Your task to perform on an android device: change timer sound Image 0: 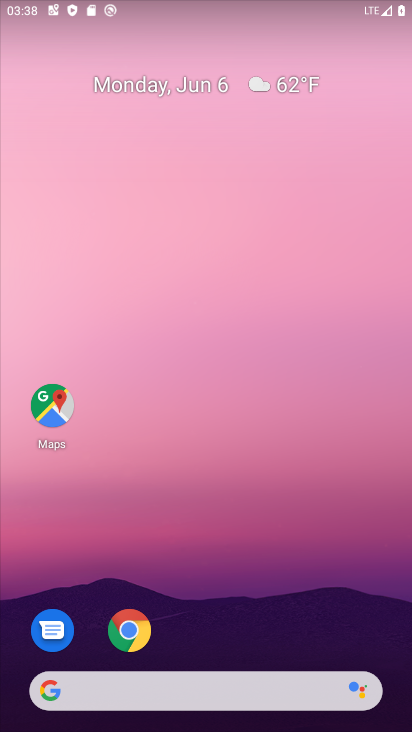
Step 0: press home button
Your task to perform on an android device: change timer sound Image 1: 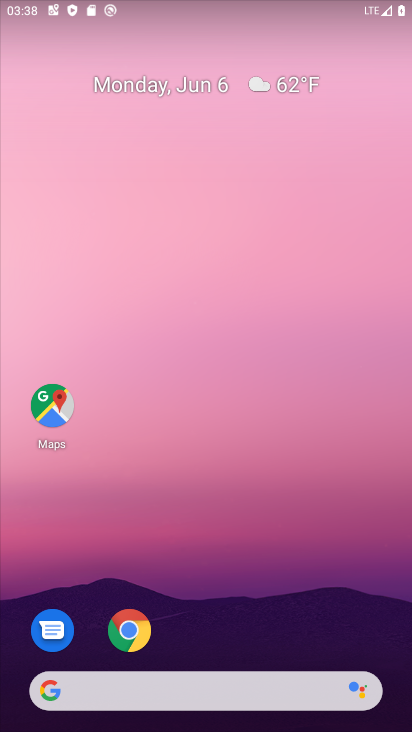
Step 1: drag from (262, 540) to (301, 37)
Your task to perform on an android device: change timer sound Image 2: 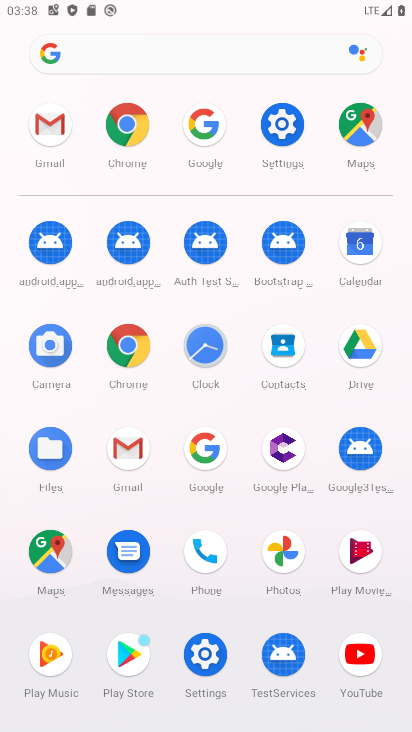
Step 2: click (200, 333)
Your task to perform on an android device: change timer sound Image 3: 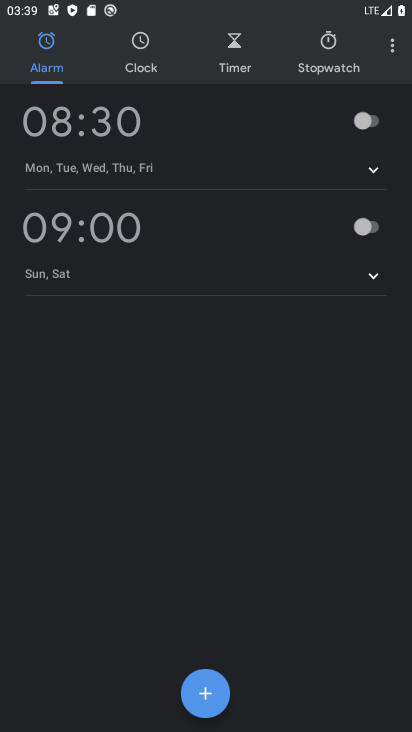
Step 3: click (227, 60)
Your task to perform on an android device: change timer sound Image 4: 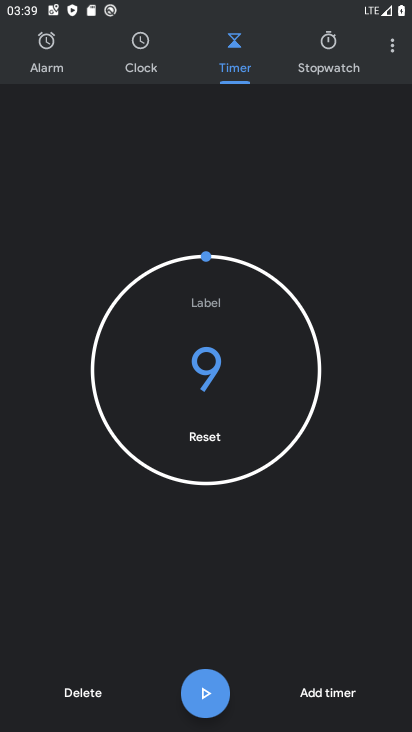
Step 4: click (343, 689)
Your task to perform on an android device: change timer sound Image 5: 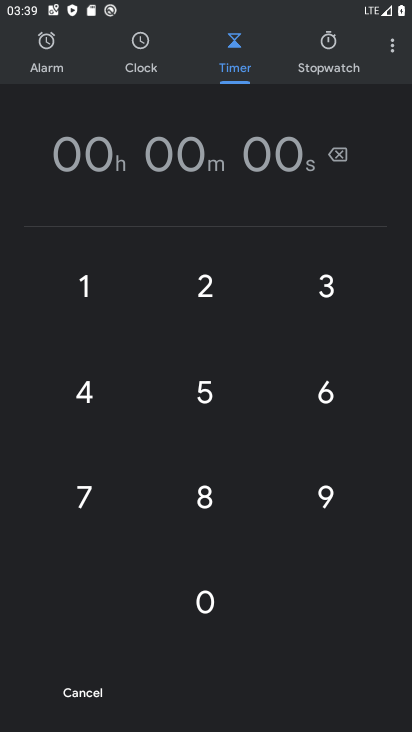
Step 5: click (324, 422)
Your task to perform on an android device: change timer sound Image 6: 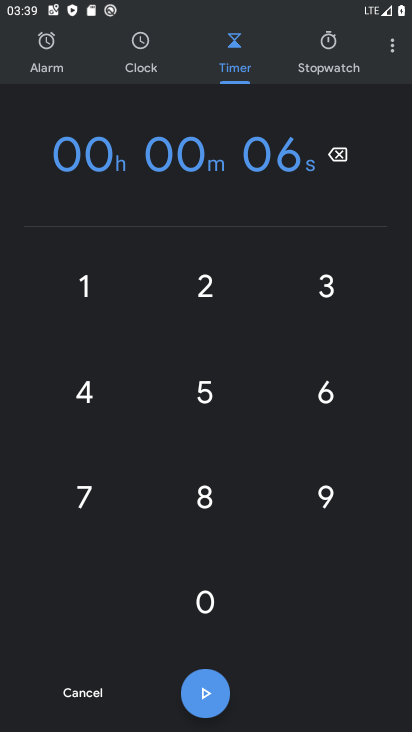
Step 6: click (400, 37)
Your task to perform on an android device: change timer sound Image 7: 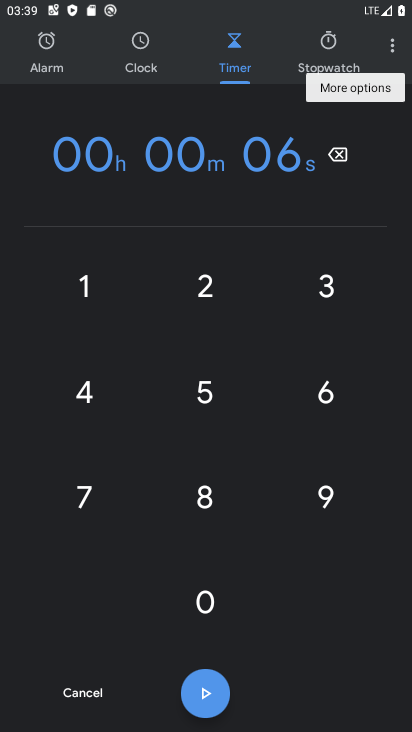
Step 7: click (392, 50)
Your task to perform on an android device: change timer sound Image 8: 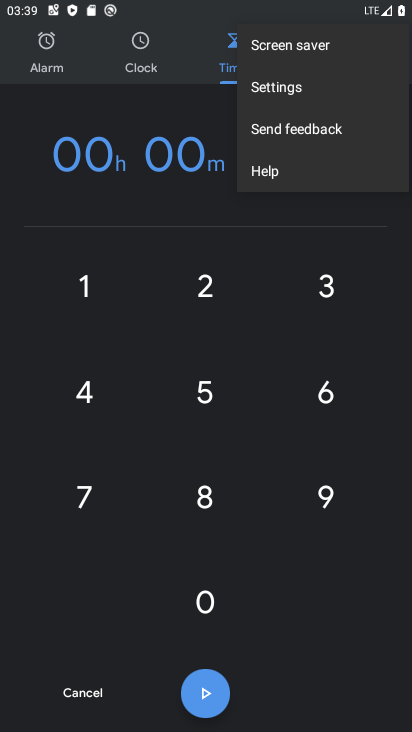
Step 8: click (313, 102)
Your task to perform on an android device: change timer sound Image 9: 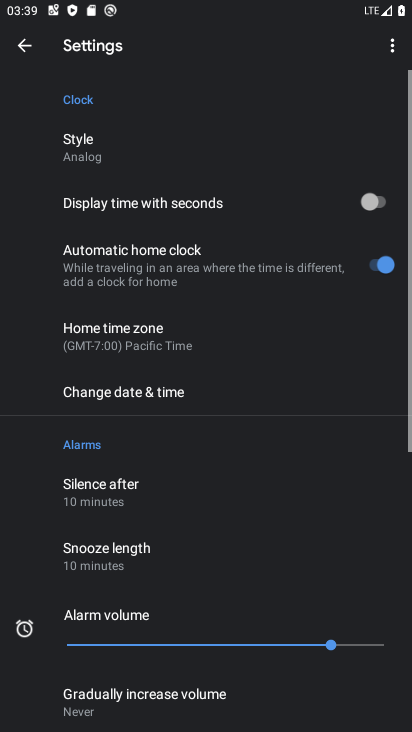
Step 9: drag from (243, 676) to (231, 122)
Your task to perform on an android device: change timer sound Image 10: 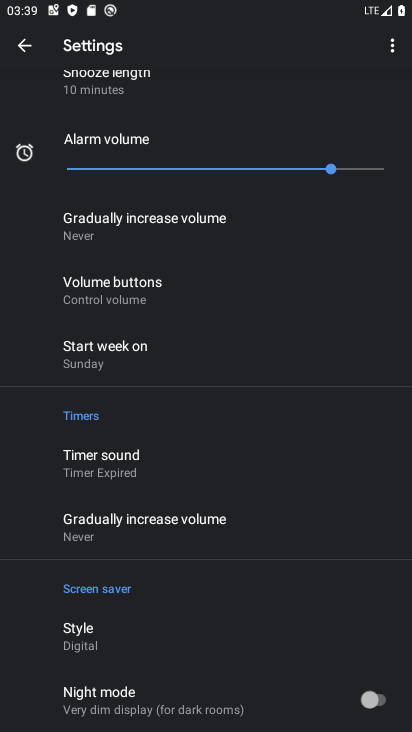
Step 10: click (125, 462)
Your task to perform on an android device: change timer sound Image 11: 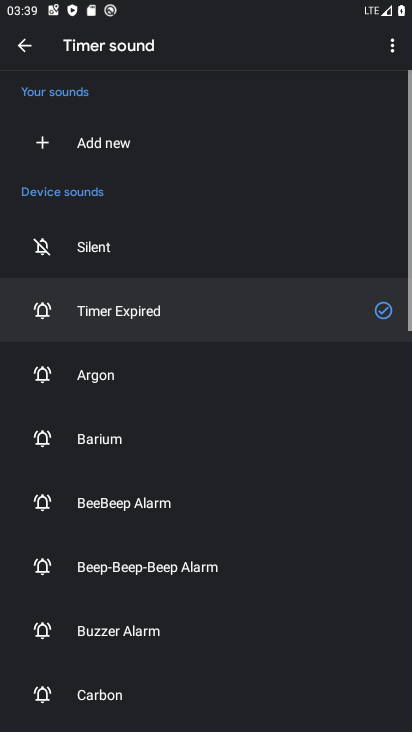
Step 11: click (191, 592)
Your task to perform on an android device: change timer sound Image 12: 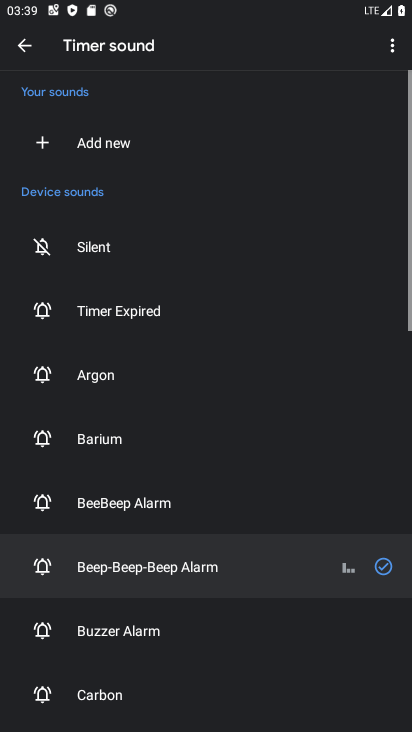
Step 12: task complete